Your task to perform on an android device: check data usage Image 0: 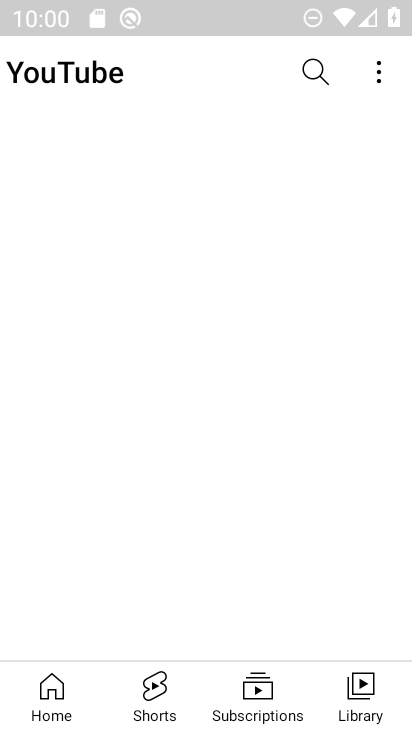
Step 0: press home button
Your task to perform on an android device: check data usage Image 1: 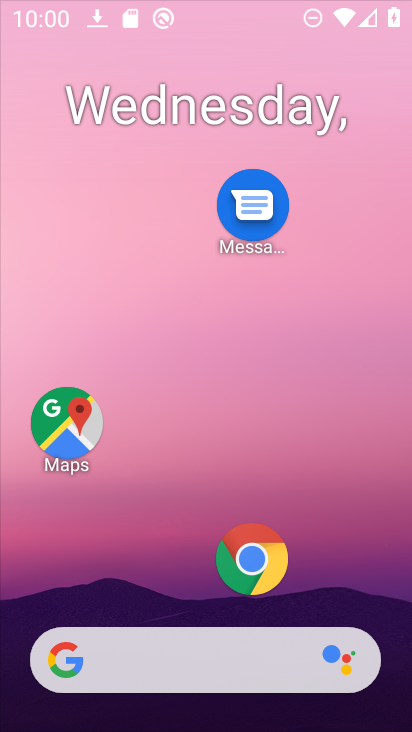
Step 1: drag from (287, 707) to (314, 153)
Your task to perform on an android device: check data usage Image 2: 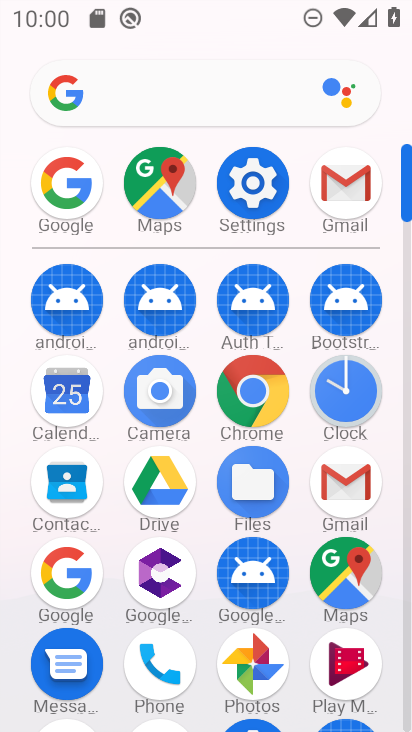
Step 2: click (249, 193)
Your task to perform on an android device: check data usage Image 3: 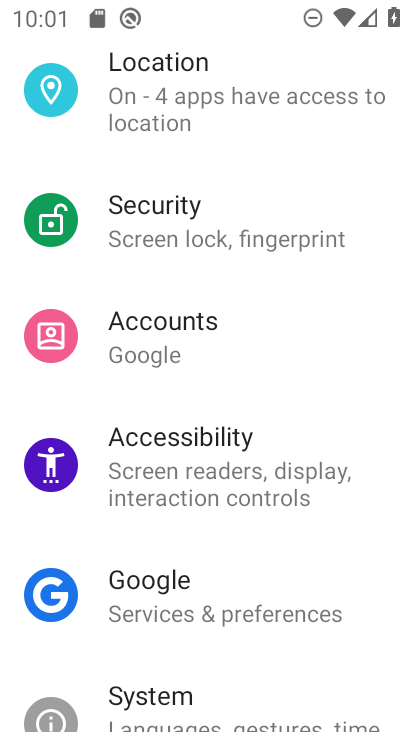
Step 3: drag from (242, 266) to (265, 577)
Your task to perform on an android device: check data usage Image 4: 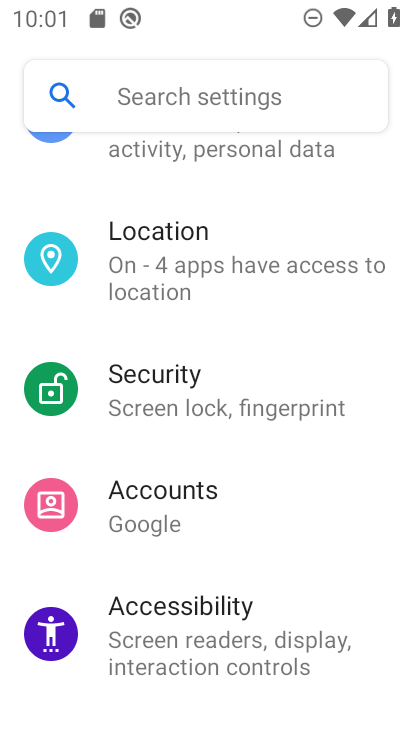
Step 4: drag from (153, 366) to (202, 728)
Your task to perform on an android device: check data usage Image 5: 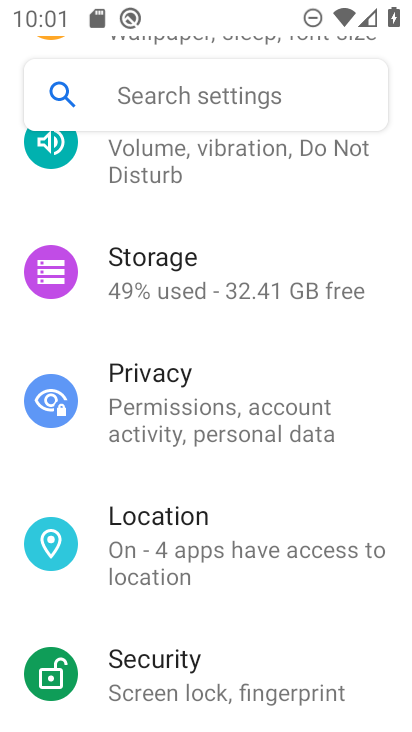
Step 5: drag from (205, 358) to (188, 665)
Your task to perform on an android device: check data usage Image 6: 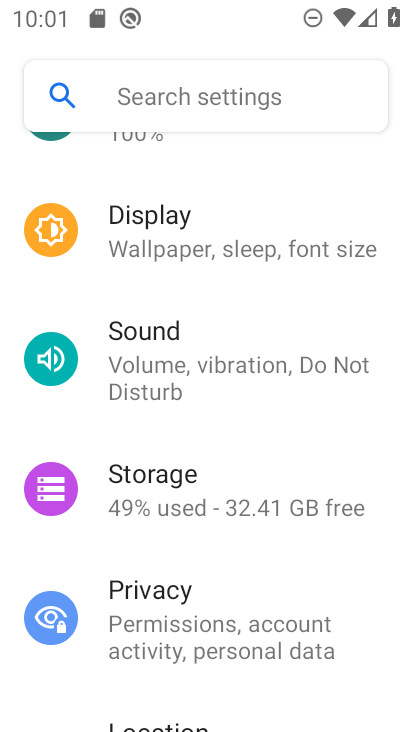
Step 6: drag from (205, 394) to (199, 679)
Your task to perform on an android device: check data usage Image 7: 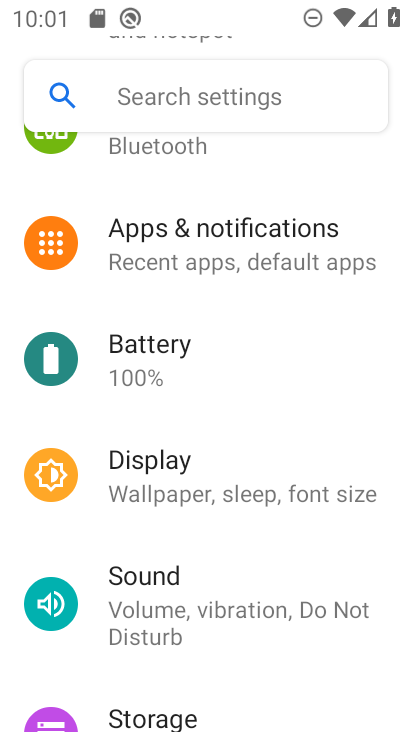
Step 7: drag from (186, 399) to (233, 725)
Your task to perform on an android device: check data usage Image 8: 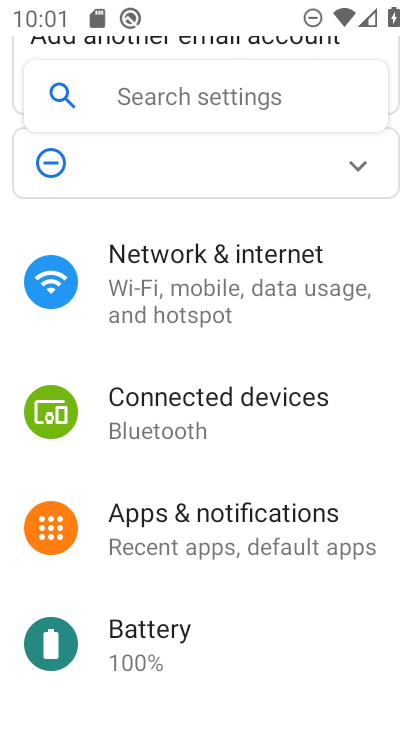
Step 8: drag from (243, 358) to (255, 524)
Your task to perform on an android device: check data usage Image 9: 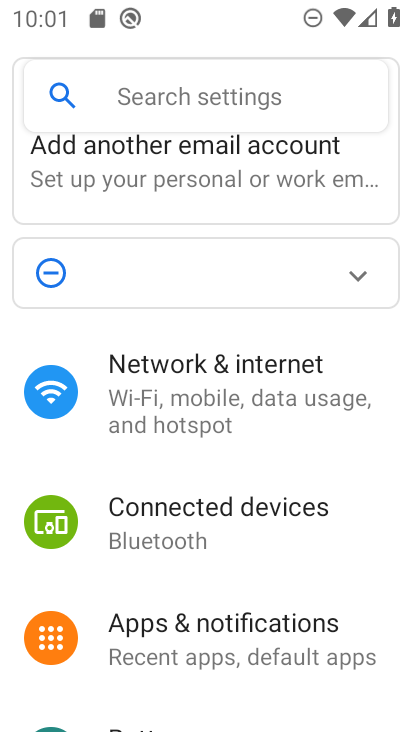
Step 9: click (252, 411)
Your task to perform on an android device: check data usage Image 10: 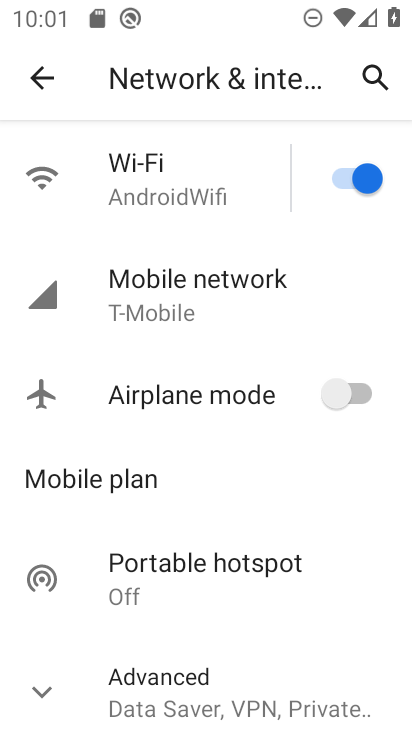
Step 10: click (172, 305)
Your task to perform on an android device: check data usage Image 11: 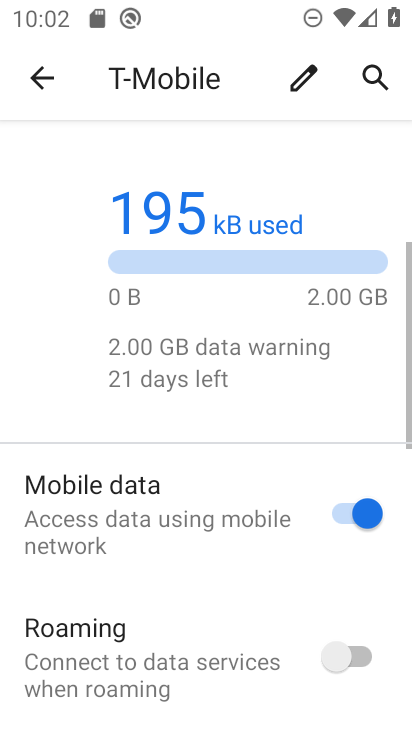
Step 11: drag from (172, 305) to (165, 146)
Your task to perform on an android device: check data usage Image 12: 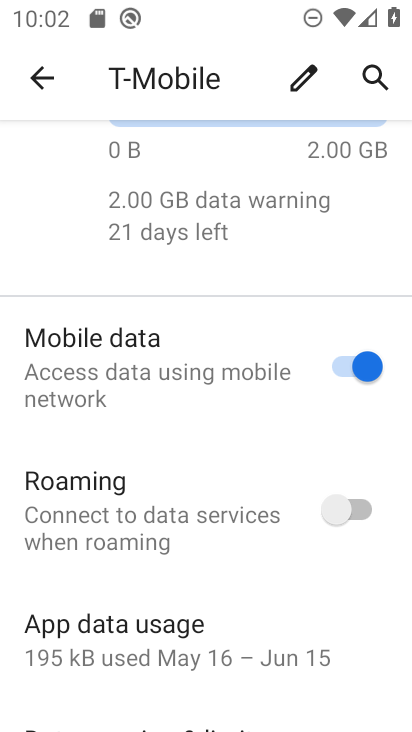
Step 12: drag from (166, 520) to (179, 359)
Your task to perform on an android device: check data usage Image 13: 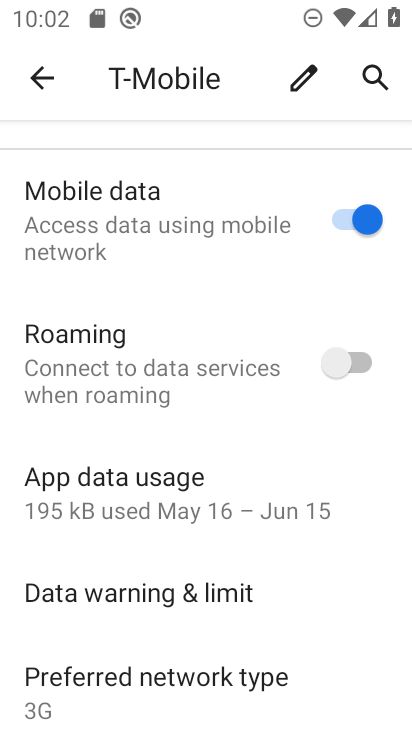
Step 13: drag from (166, 595) to (152, 477)
Your task to perform on an android device: check data usage Image 14: 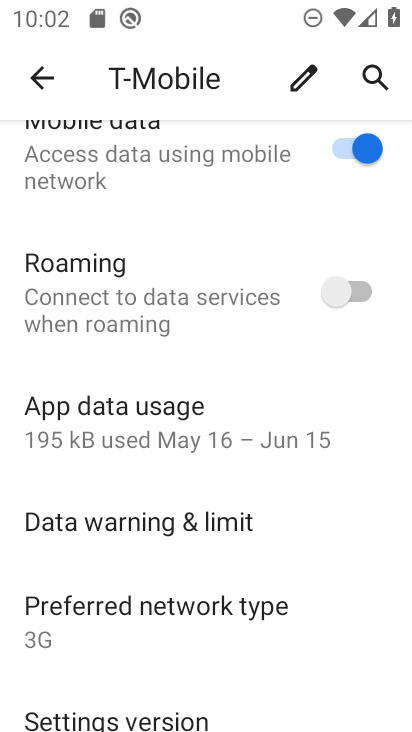
Step 14: click (167, 433)
Your task to perform on an android device: check data usage Image 15: 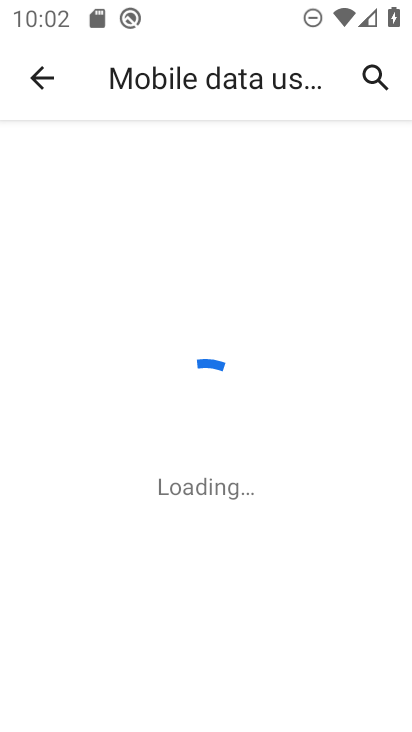
Step 15: task complete